Your task to perform on an android device: refresh tabs in the chrome app Image 0: 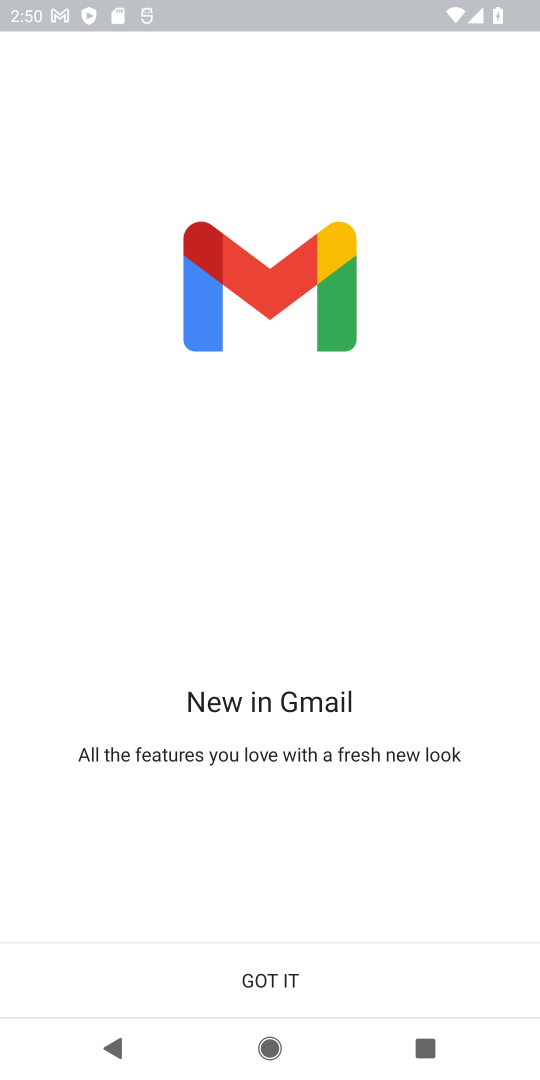
Step 0: press home button
Your task to perform on an android device: refresh tabs in the chrome app Image 1: 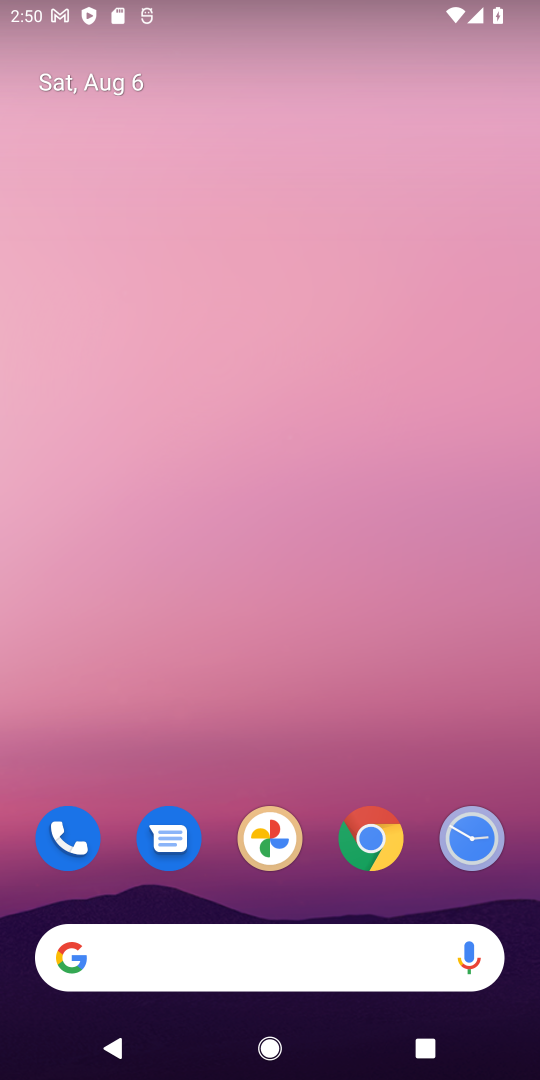
Step 1: click (354, 837)
Your task to perform on an android device: refresh tabs in the chrome app Image 2: 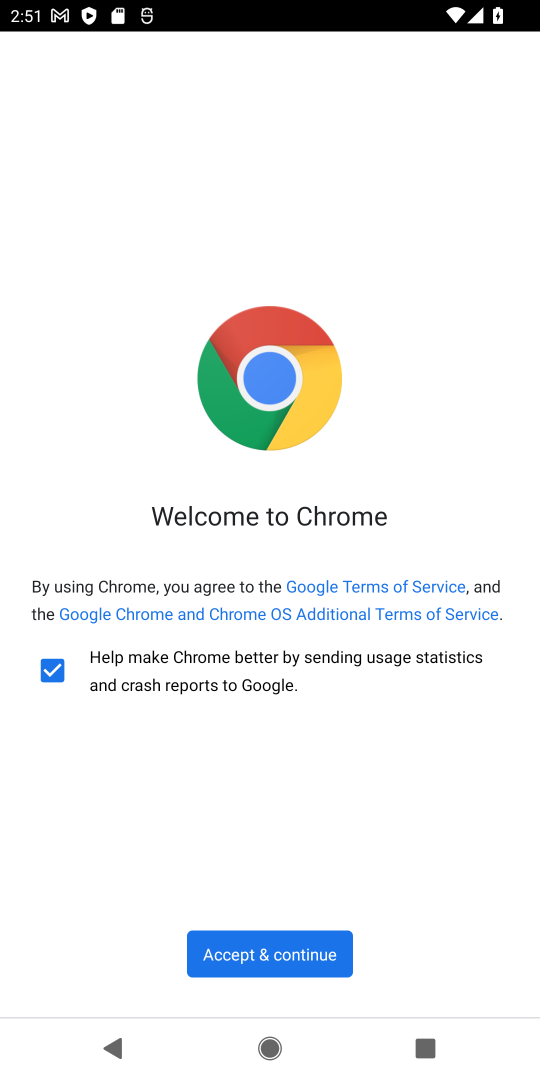
Step 2: click (216, 957)
Your task to perform on an android device: refresh tabs in the chrome app Image 3: 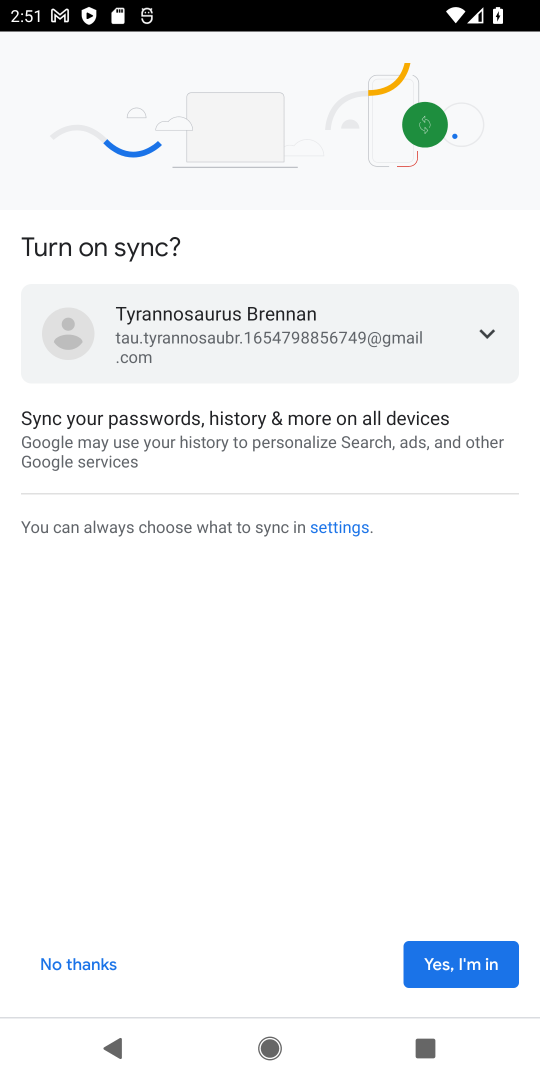
Step 3: click (69, 975)
Your task to perform on an android device: refresh tabs in the chrome app Image 4: 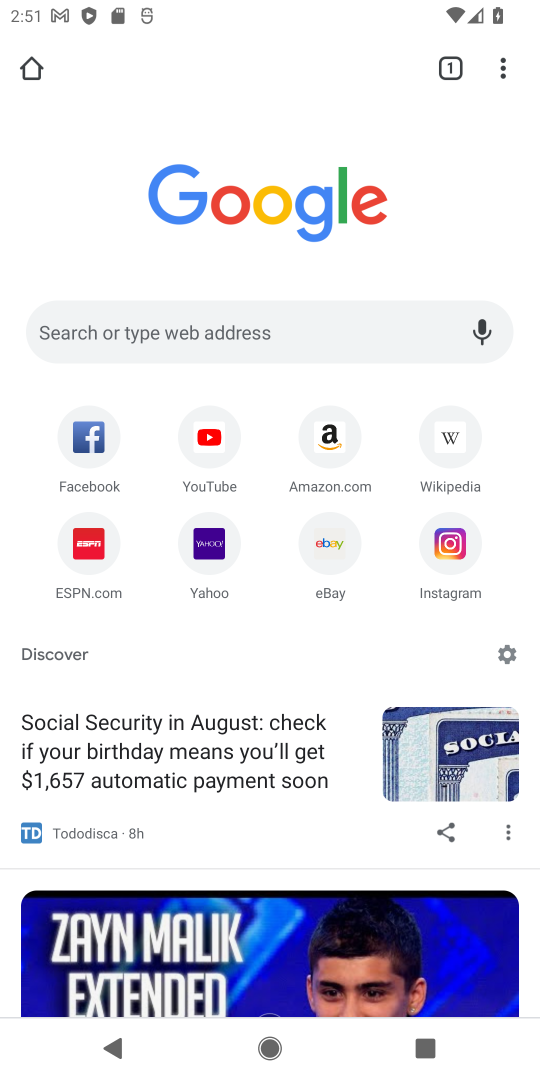
Step 4: click (500, 65)
Your task to perform on an android device: refresh tabs in the chrome app Image 5: 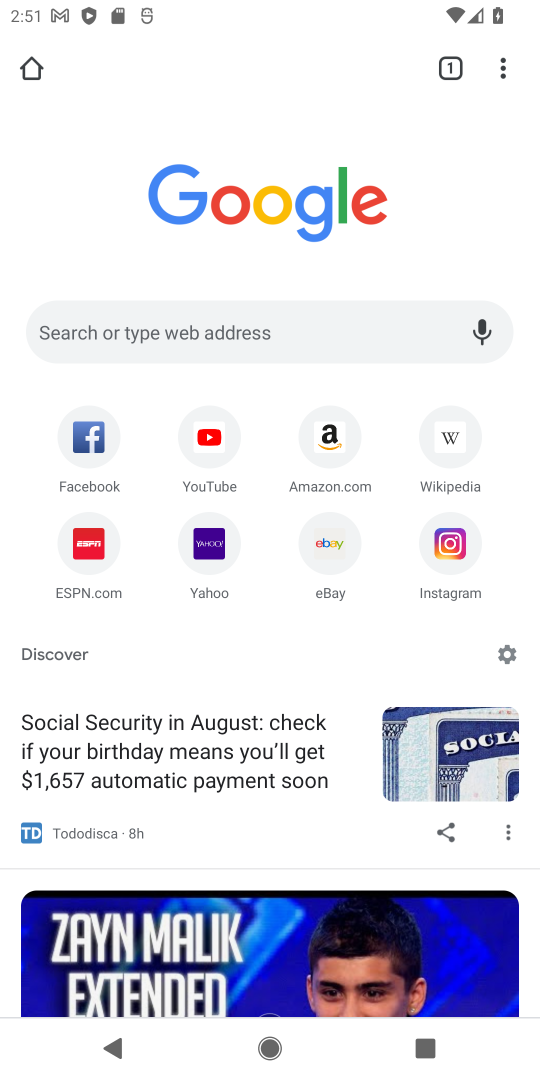
Step 5: click (500, 65)
Your task to perform on an android device: refresh tabs in the chrome app Image 6: 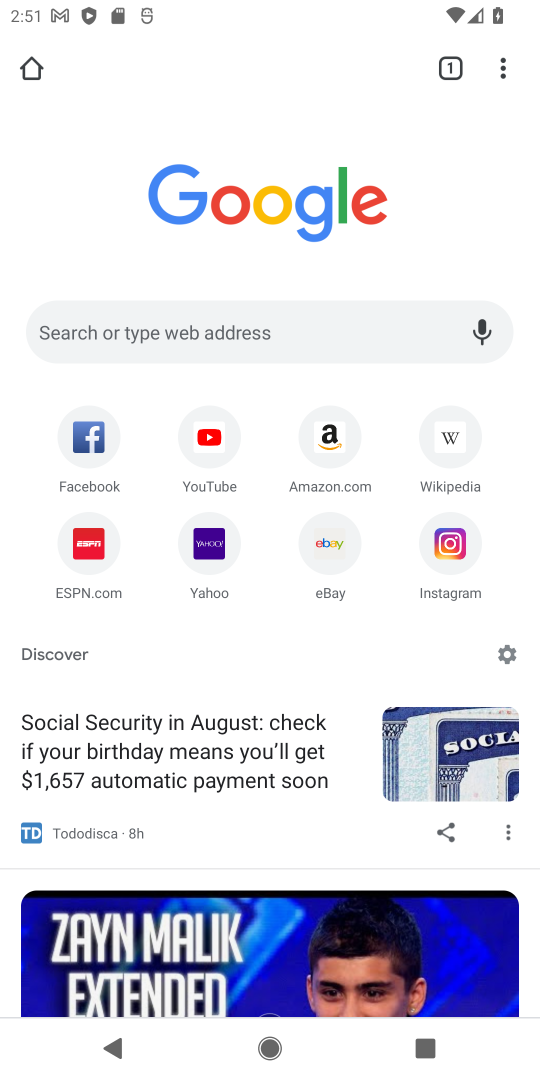
Step 6: click (500, 65)
Your task to perform on an android device: refresh tabs in the chrome app Image 7: 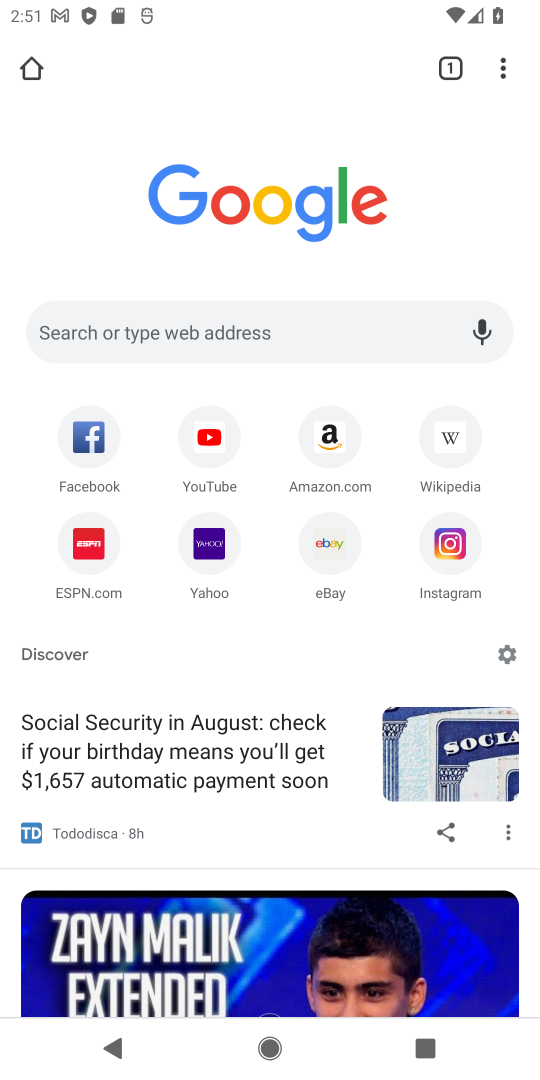
Step 7: click (496, 67)
Your task to perform on an android device: refresh tabs in the chrome app Image 8: 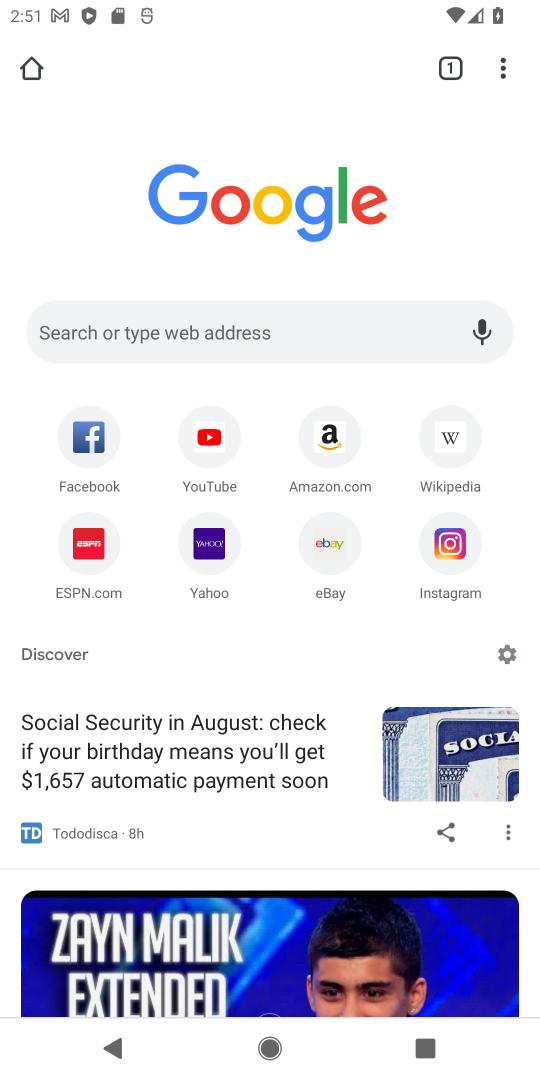
Step 8: click (500, 65)
Your task to perform on an android device: refresh tabs in the chrome app Image 9: 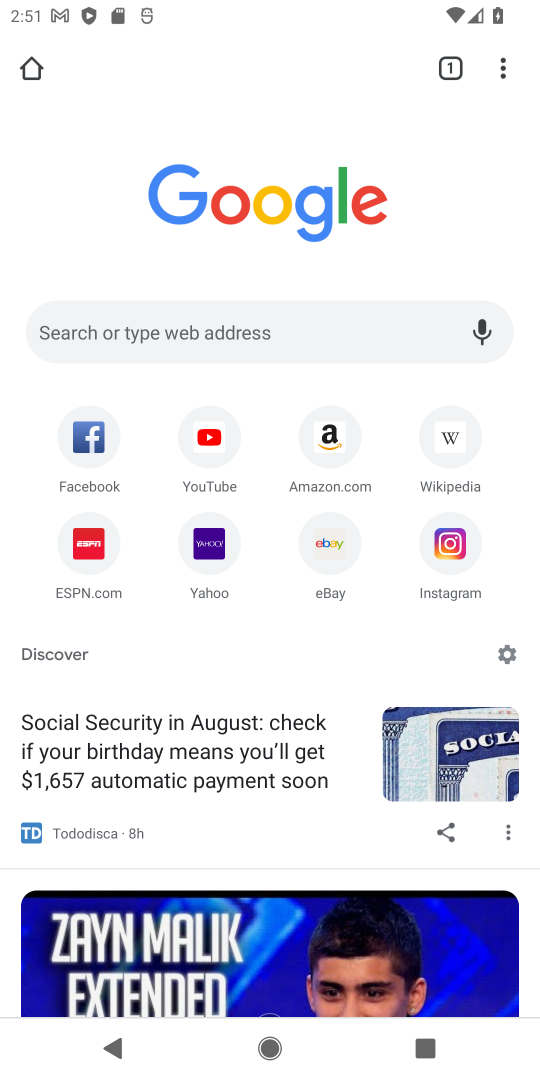
Step 9: click (504, 72)
Your task to perform on an android device: refresh tabs in the chrome app Image 10: 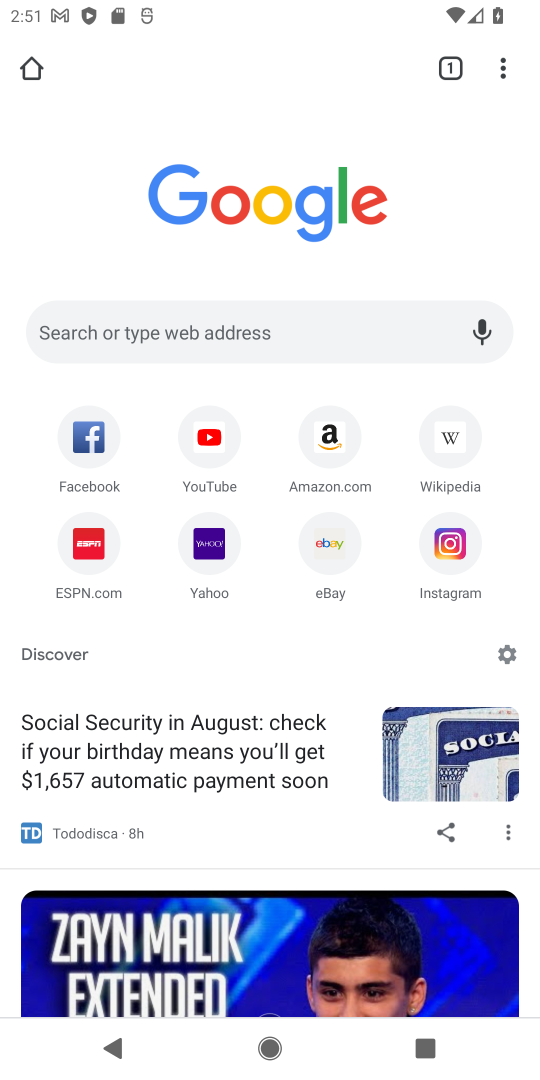
Step 10: click (496, 61)
Your task to perform on an android device: refresh tabs in the chrome app Image 11: 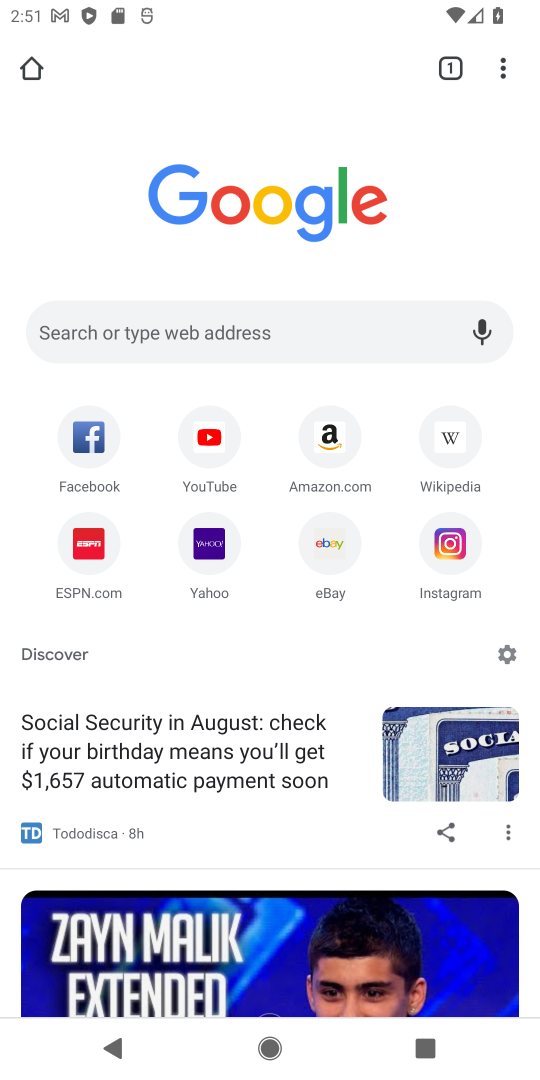
Step 11: click (492, 69)
Your task to perform on an android device: refresh tabs in the chrome app Image 12: 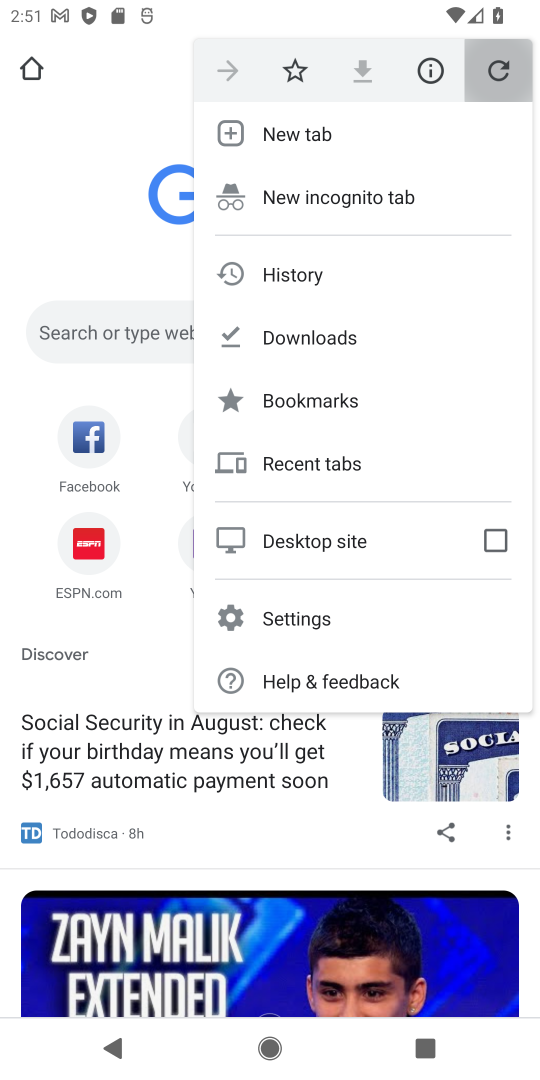
Step 12: click (499, 66)
Your task to perform on an android device: refresh tabs in the chrome app Image 13: 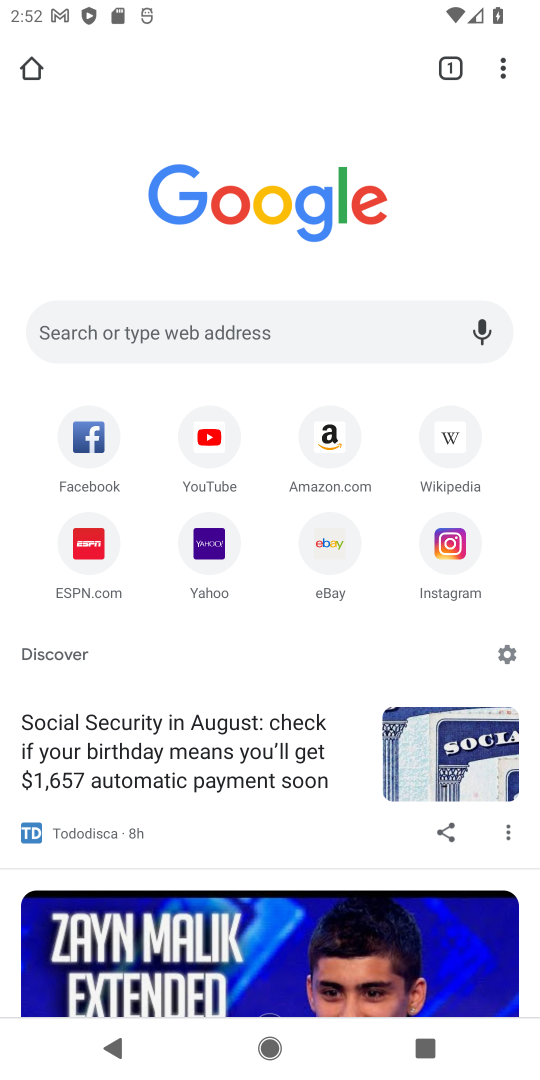
Step 13: click (499, 66)
Your task to perform on an android device: refresh tabs in the chrome app Image 14: 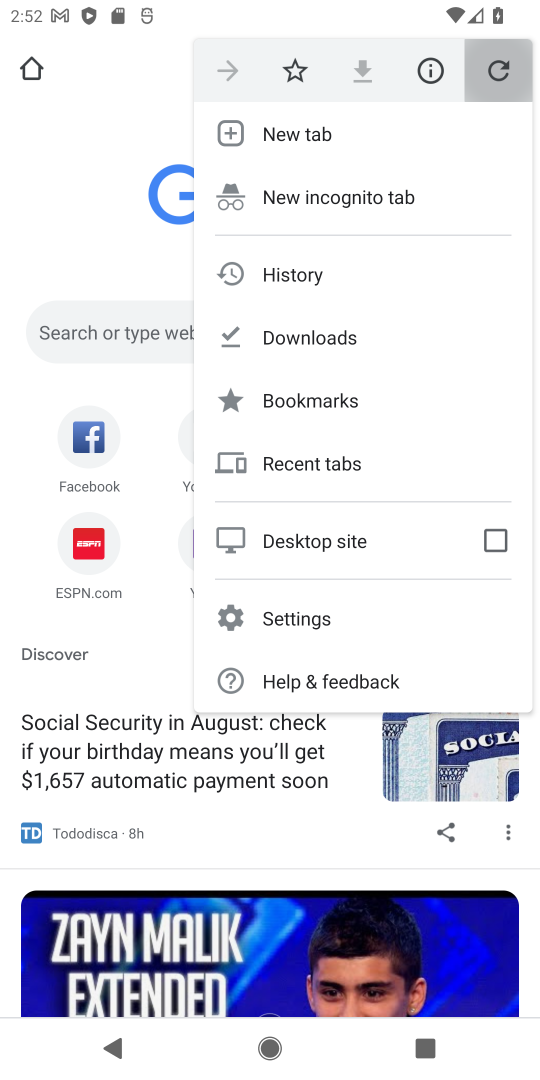
Step 14: click (497, 69)
Your task to perform on an android device: refresh tabs in the chrome app Image 15: 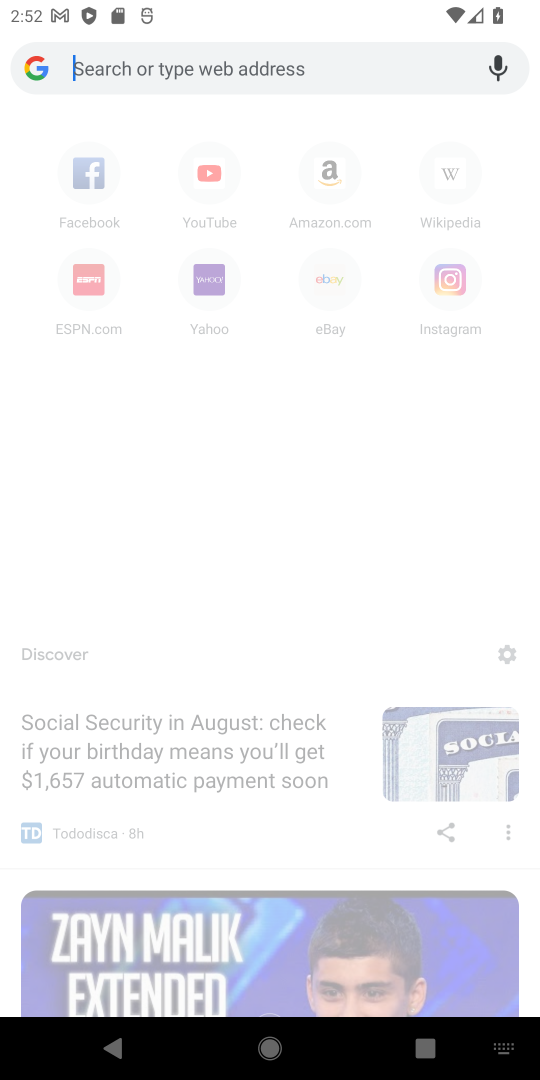
Step 15: task complete